Your task to perform on an android device: open app "Pandora - Music & Podcasts" Image 0: 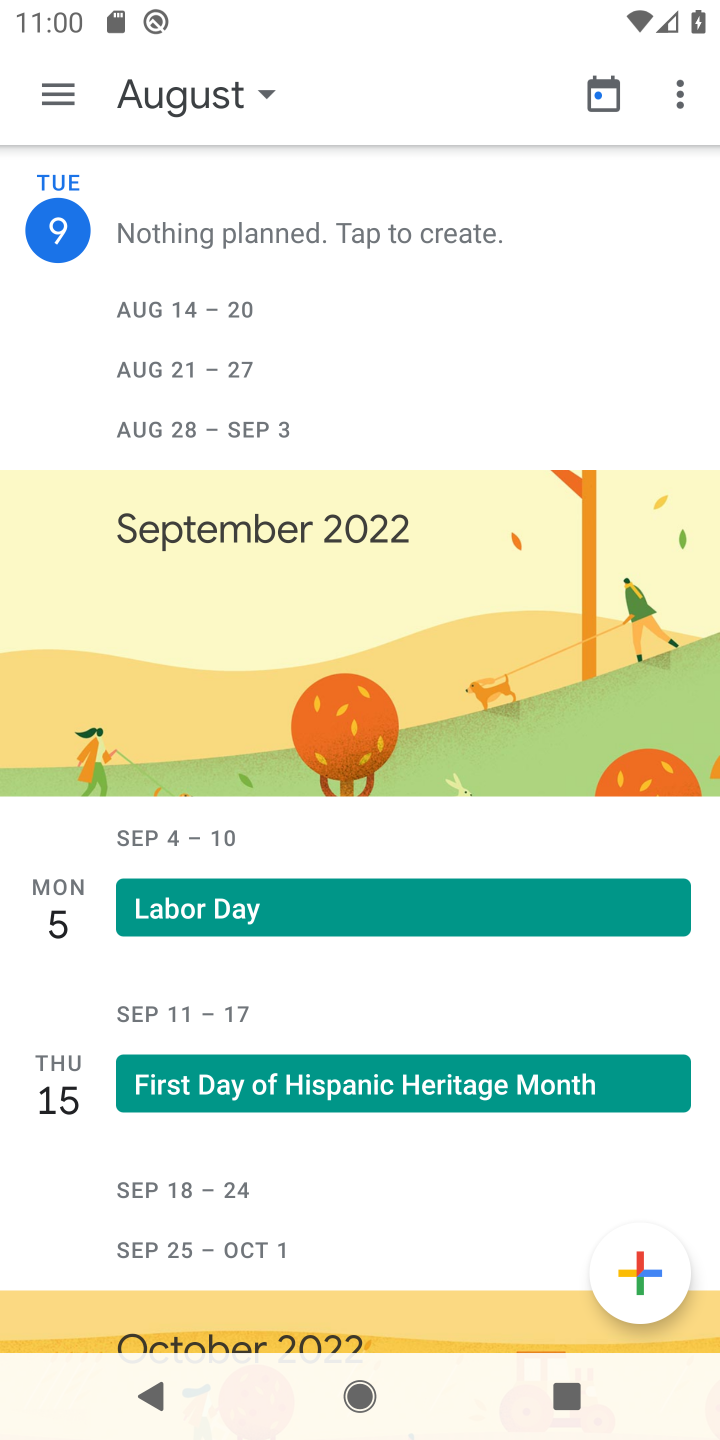
Step 0: press home button
Your task to perform on an android device: open app "Pandora - Music & Podcasts" Image 1: 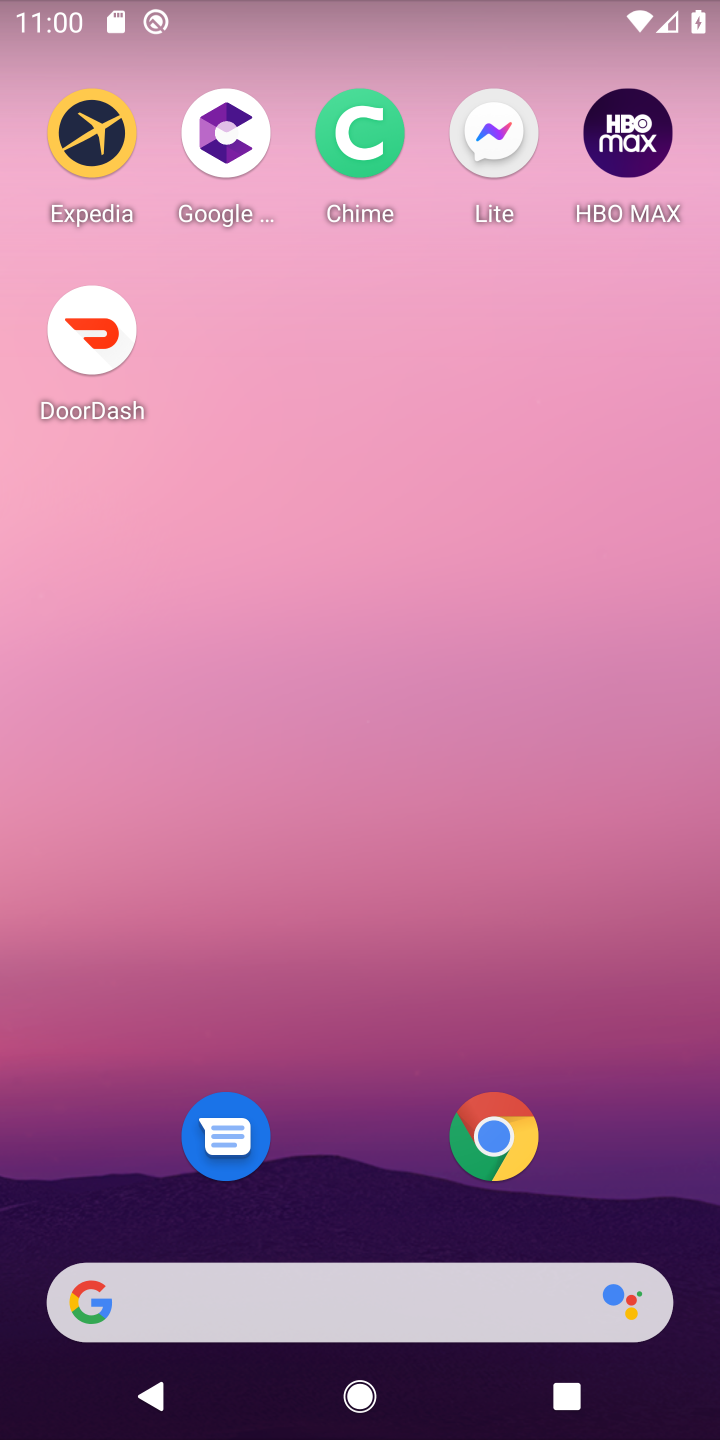
Step 1: drag from (320, 1169) to (365, 2)
Your task to perform on an android device: open app "Pandora - Music & Podcasts" Image 2: 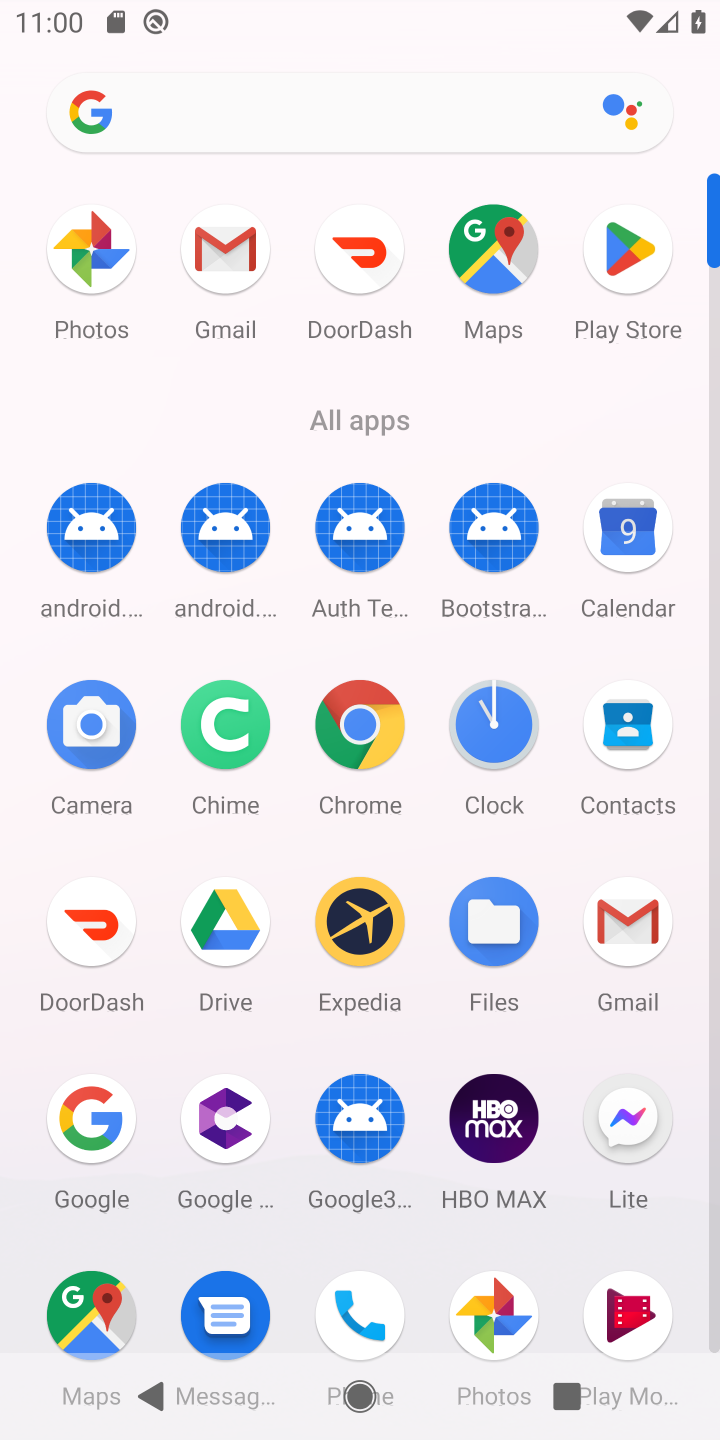
Step 2: click (648, 318)
Your task to perform on an android device: open app "Pandora - Music & Podcasts" Image 3: 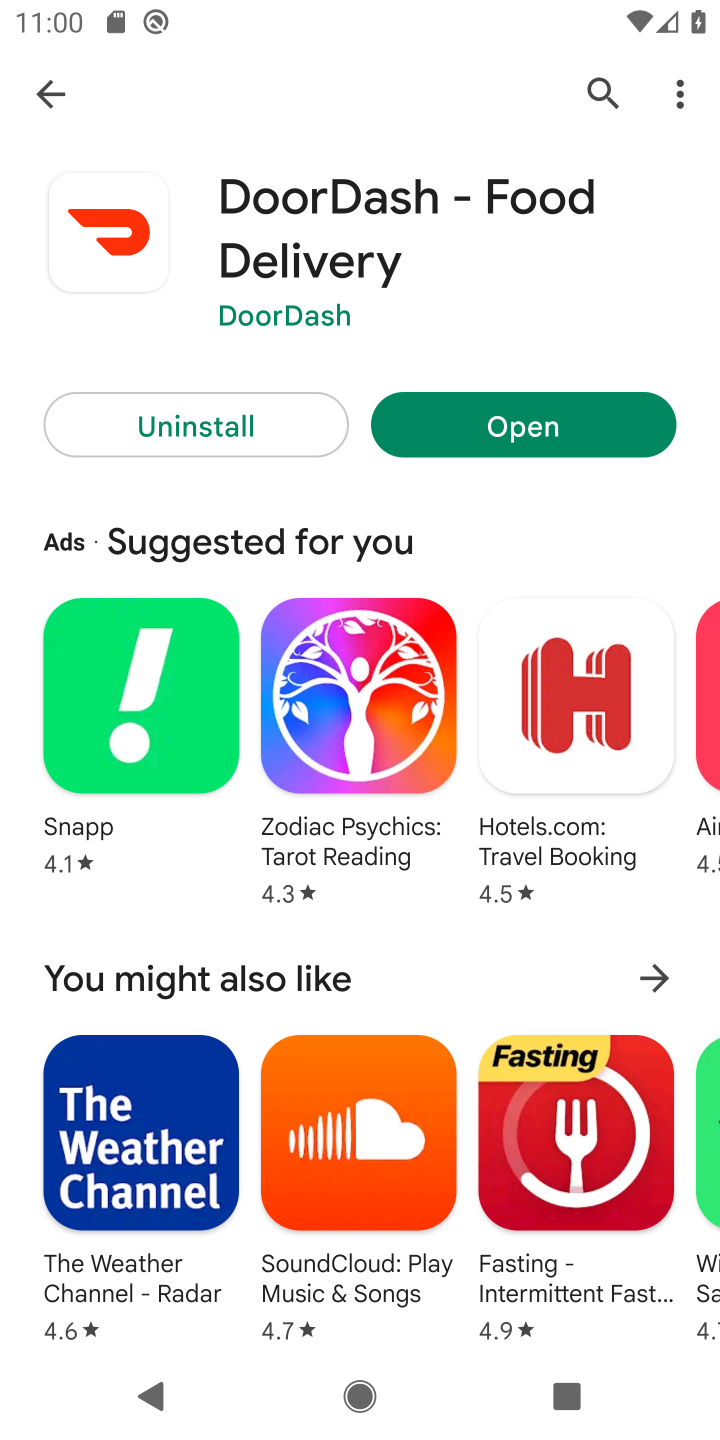
Step 3: click (49, 98)
Your task to perform on an android device: open app "Pandora - Music & Podcasts" Image 4: 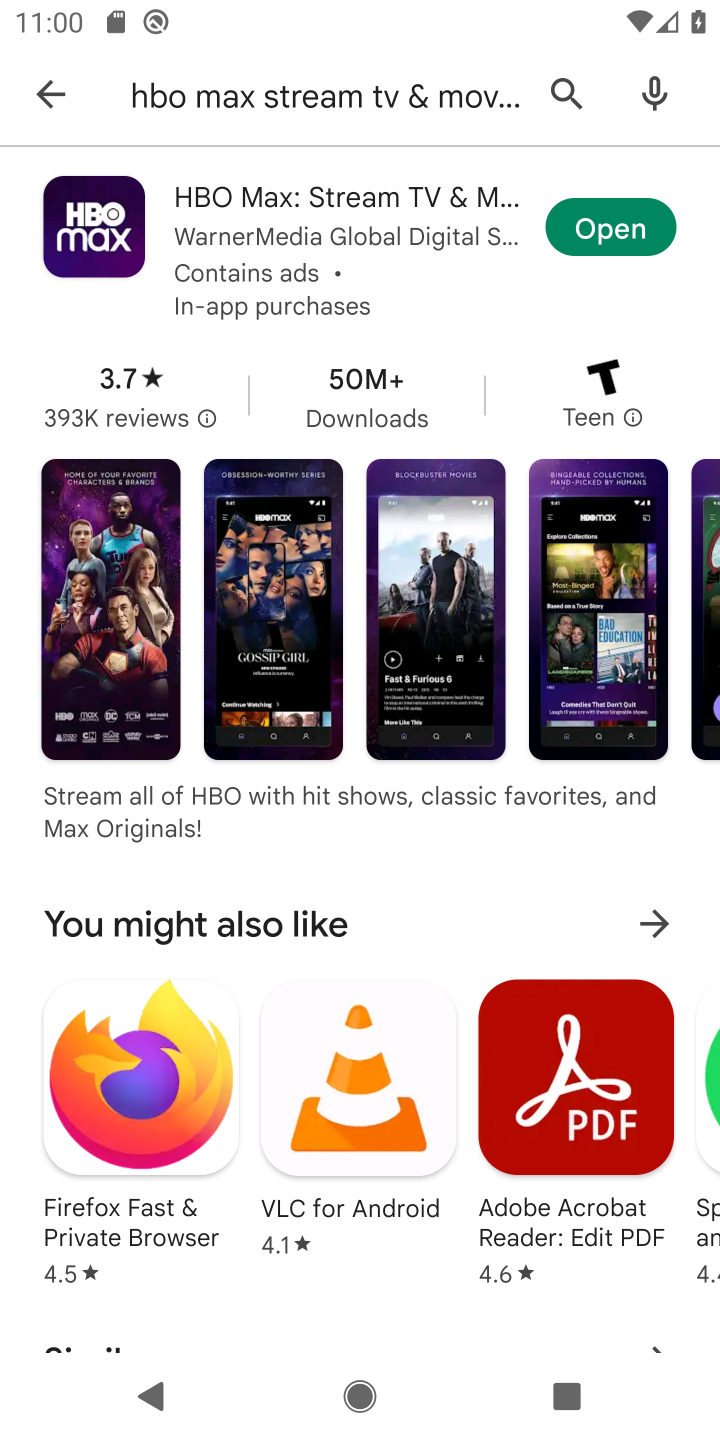
Step 4: click (212, 100)
Your task to perform on an android device: open app "Pandora - Music & Podcasts" Image 5: 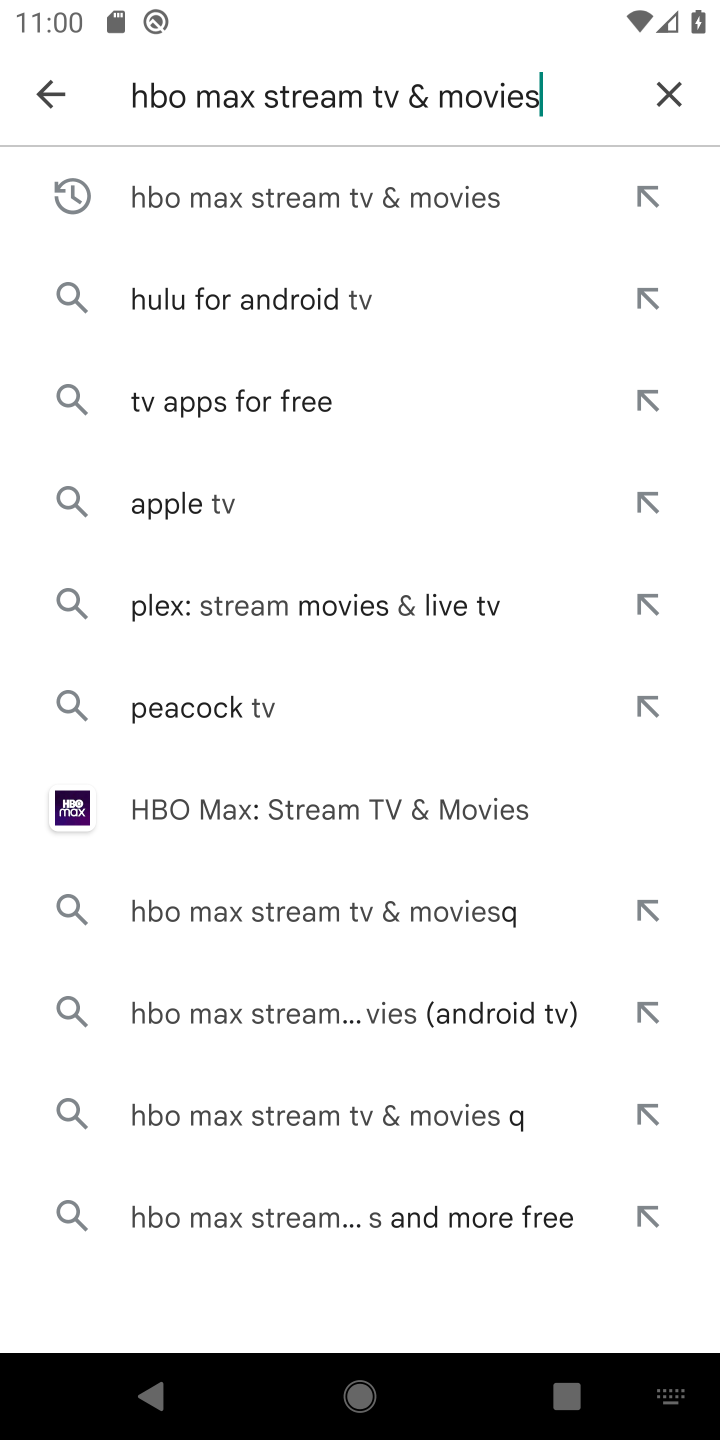
Step 5: click (662, 87)
Your task to perform on an android device: open app "Pandora - Music & Podcasts" Image 6: 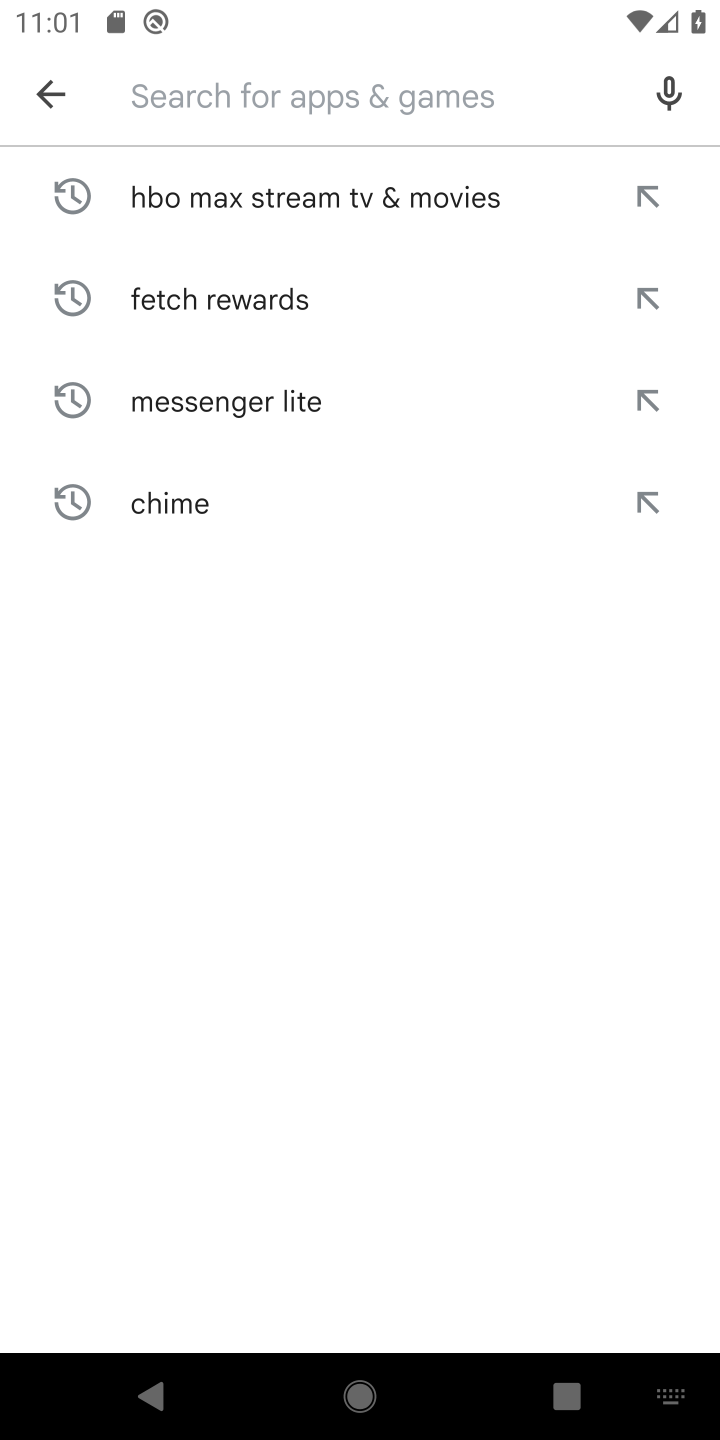
Step 6: type "Pandora"
Your task to perform on an android device: open app "Pandora - Music & Podcasts" Image 7: 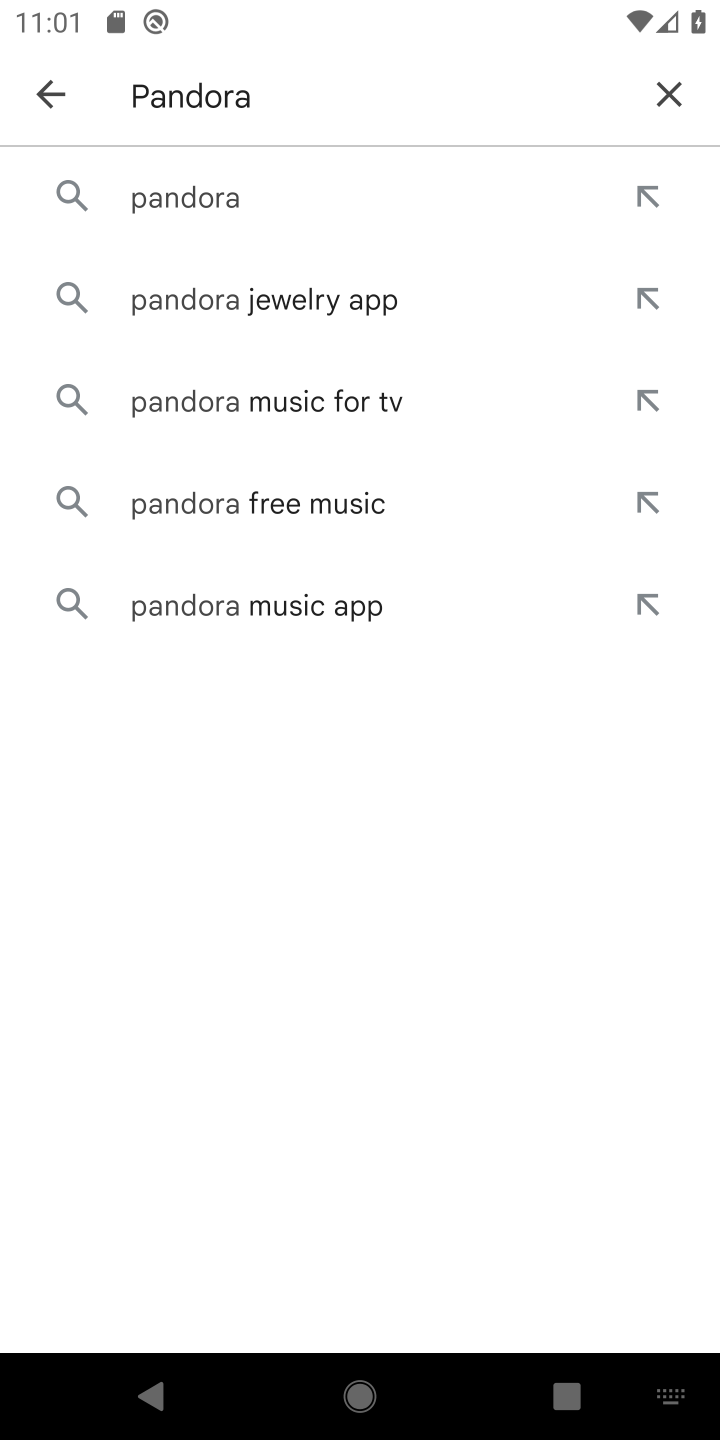
Step 7: click (226, 226)
Your task to perform on an android device: open app "Pandora - Music & Podcasts" Image 8: 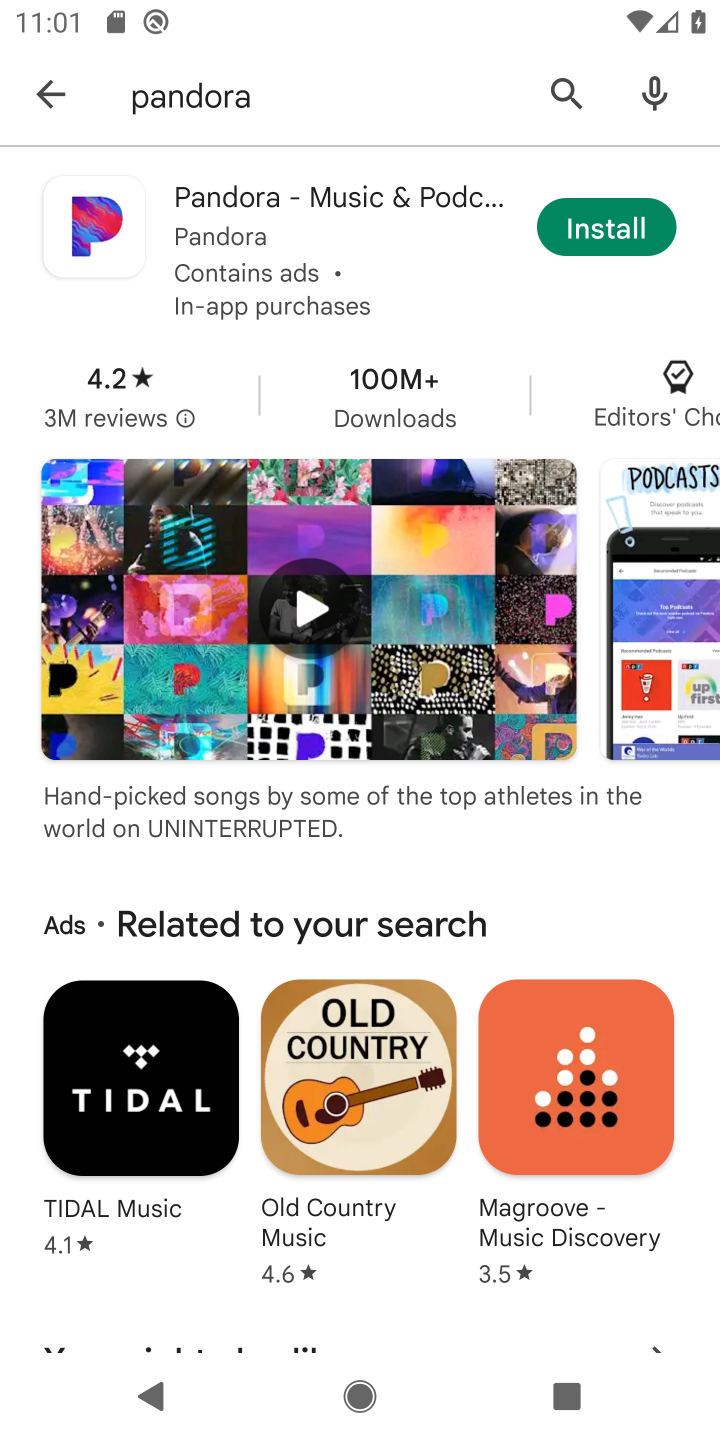
Step 8: task complete